Your task to perform on an android device: open app "Adobe Acrobat Reader: Edit PDF" Image 0: 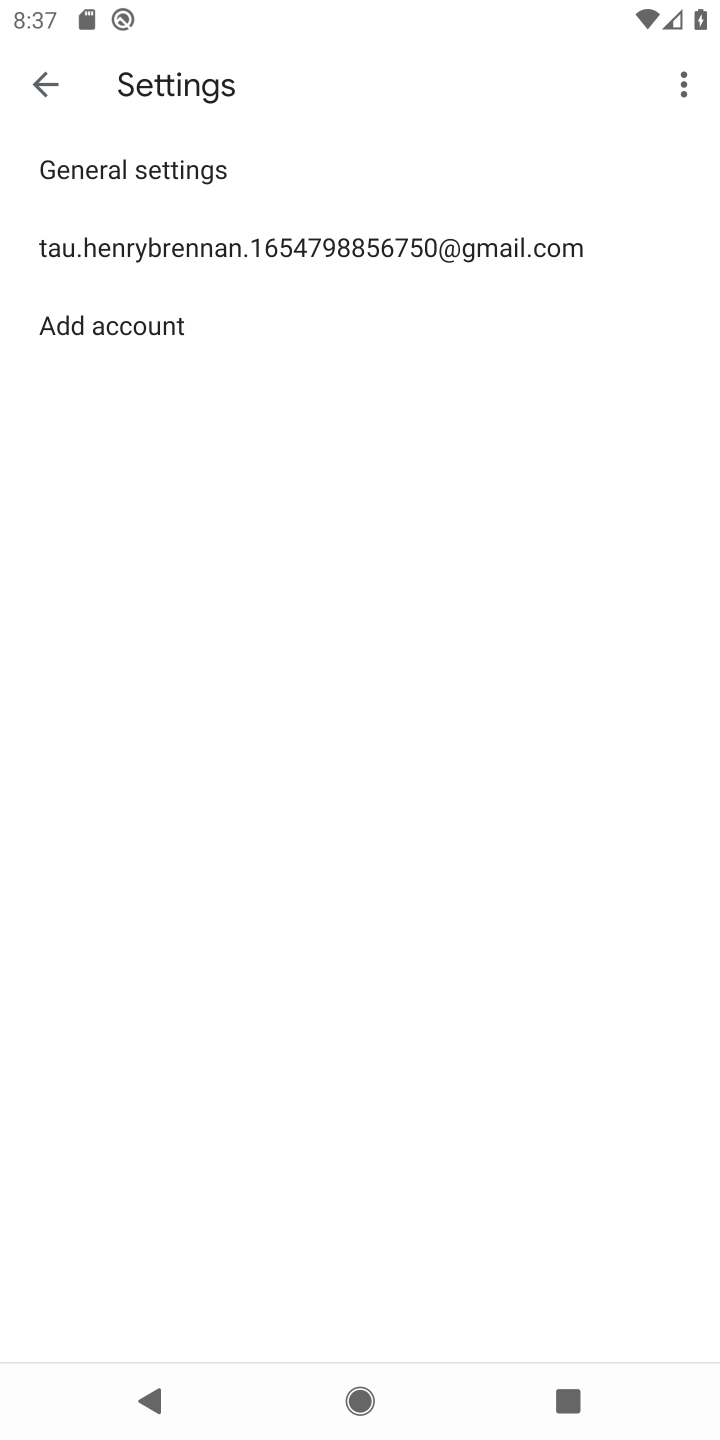
Step 0: press home button
Your task to perform on an android device: open app "Adobe Acrobat Reader: Edit PDF" Image 1: 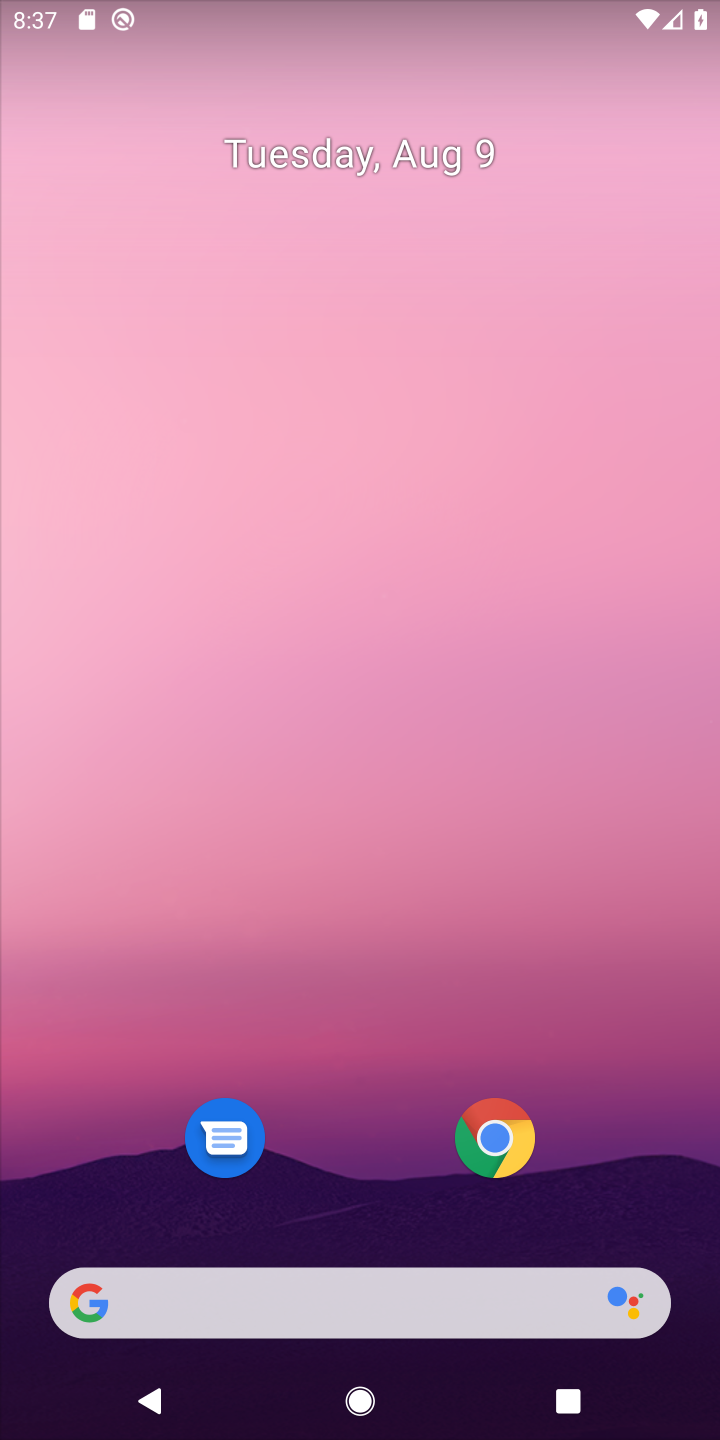
Step 1: drag from (356, 1075) to (356, 353)
Your task to perform on an android device: open app "Adobe Acrobat Reader: Edit PDF" Image 2: 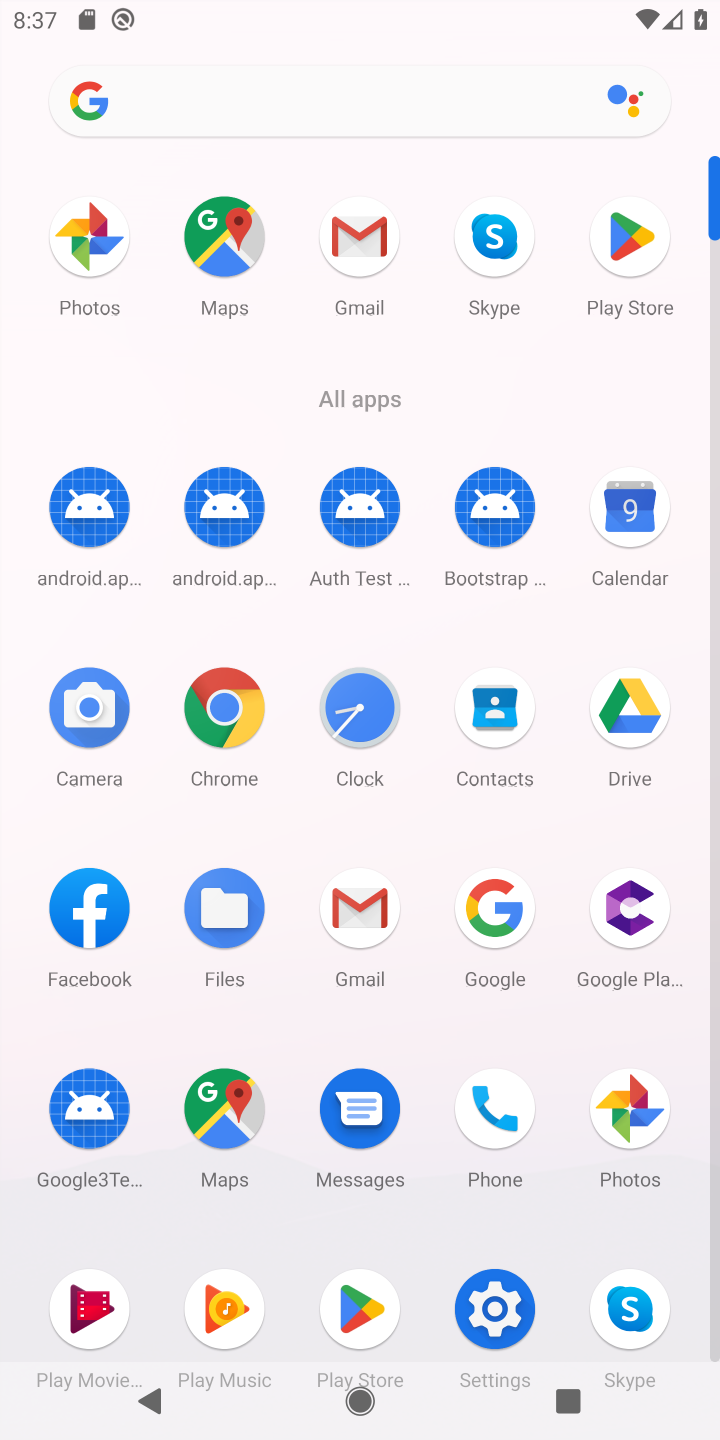
Step 2: click (605, 248)
Your task to perform on an android device: open app "Adobe Acrobat Reader: Edit PDF" Image 3: 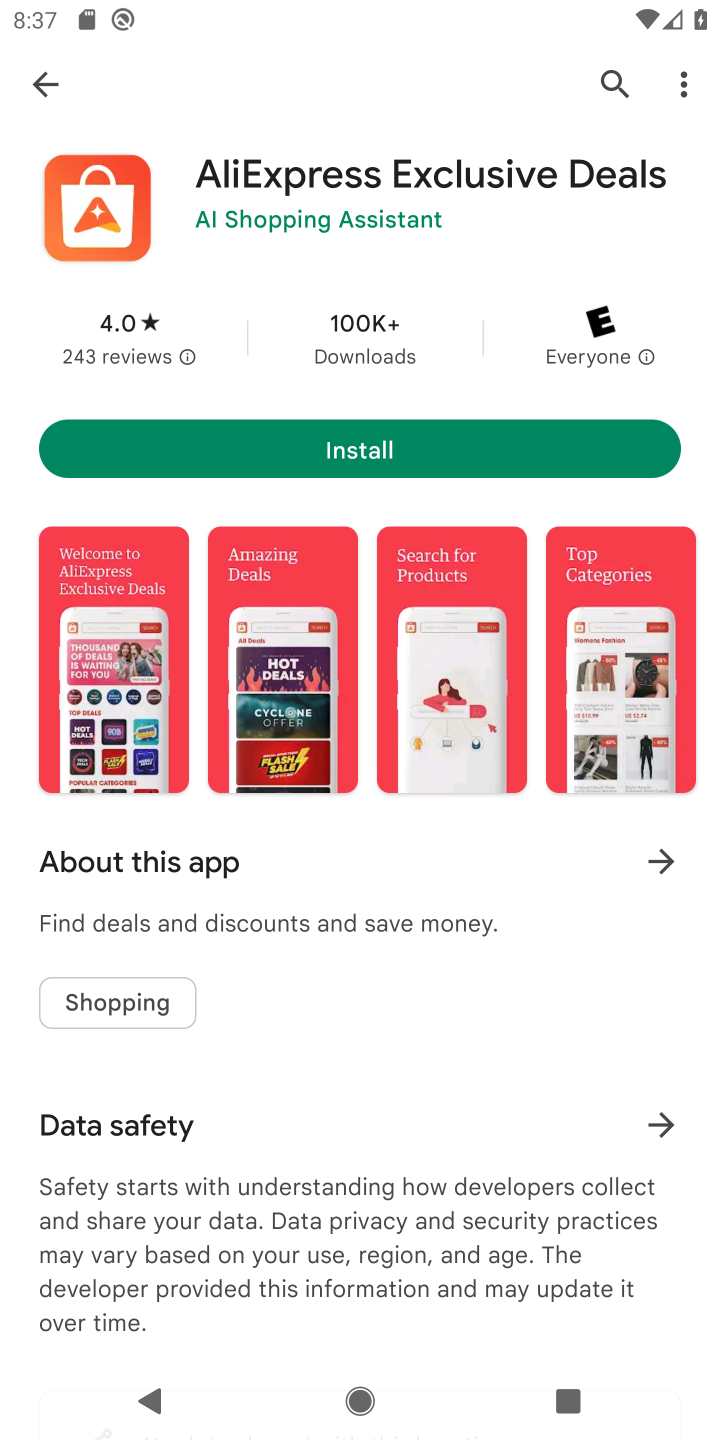
Step 3: click (622, 88)
Your task to perform on an android device: open app "Adobe Acrobat Reader: Edit PDF" Image 4: 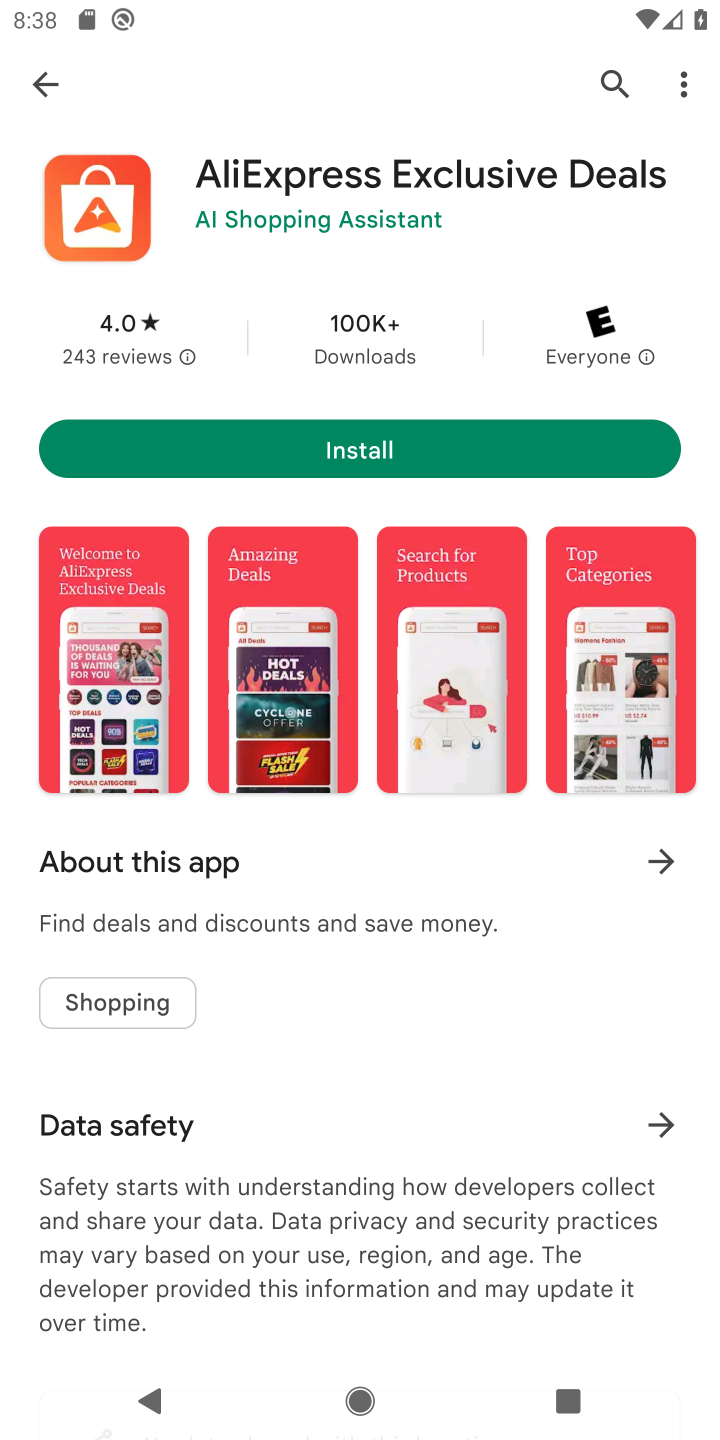
Step 4: click (614, 79)
Your task to perform on an android device: open app "Adobe Acrobat Reader: Edit PDF" Image 5: 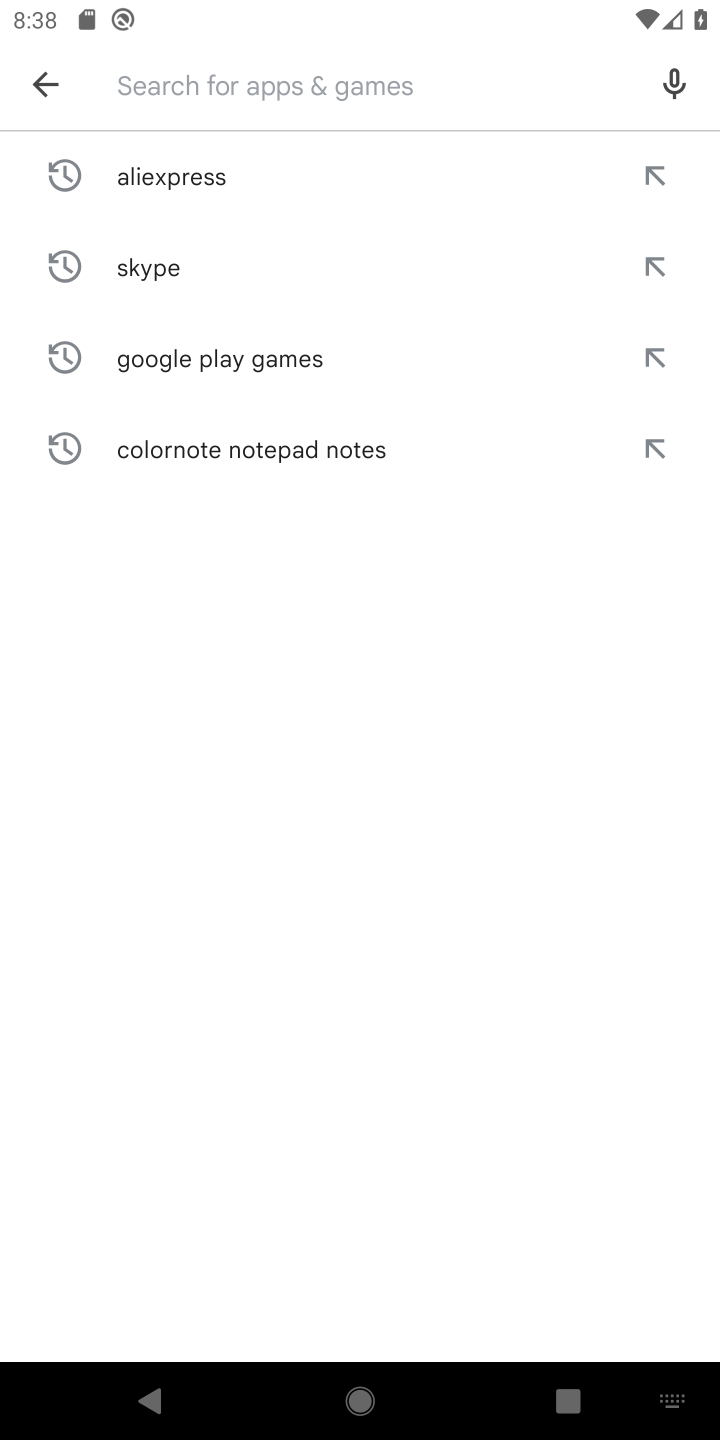
Step 5: type "Adobe Acrobat Reader: Edit PDF"
Your task to perform on an android device: open app "Adobe Acrobat Reader: Edit PDF" Image 6: 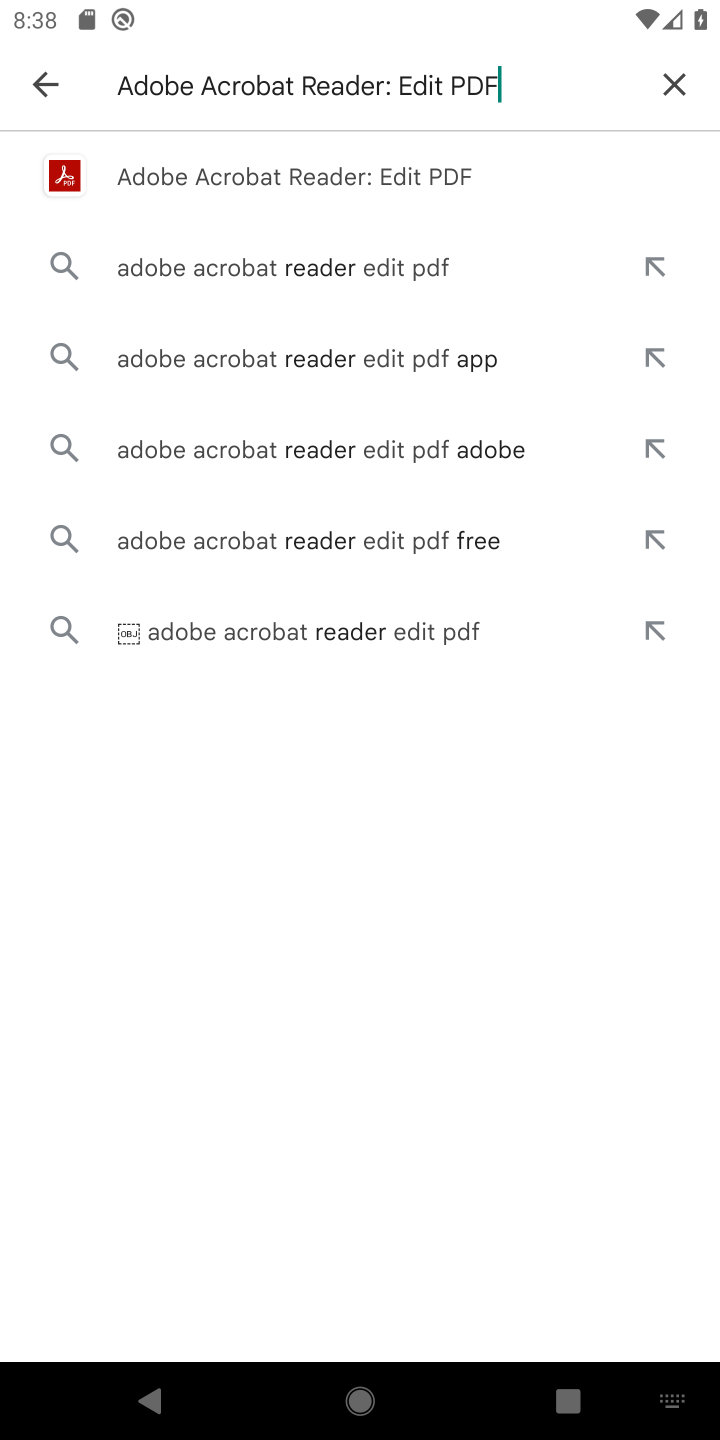
Step 6: click (203, 181)
Your task to perform on an android device: open app "Adobe Acrobat Reader: Edit PDF" Image 7: 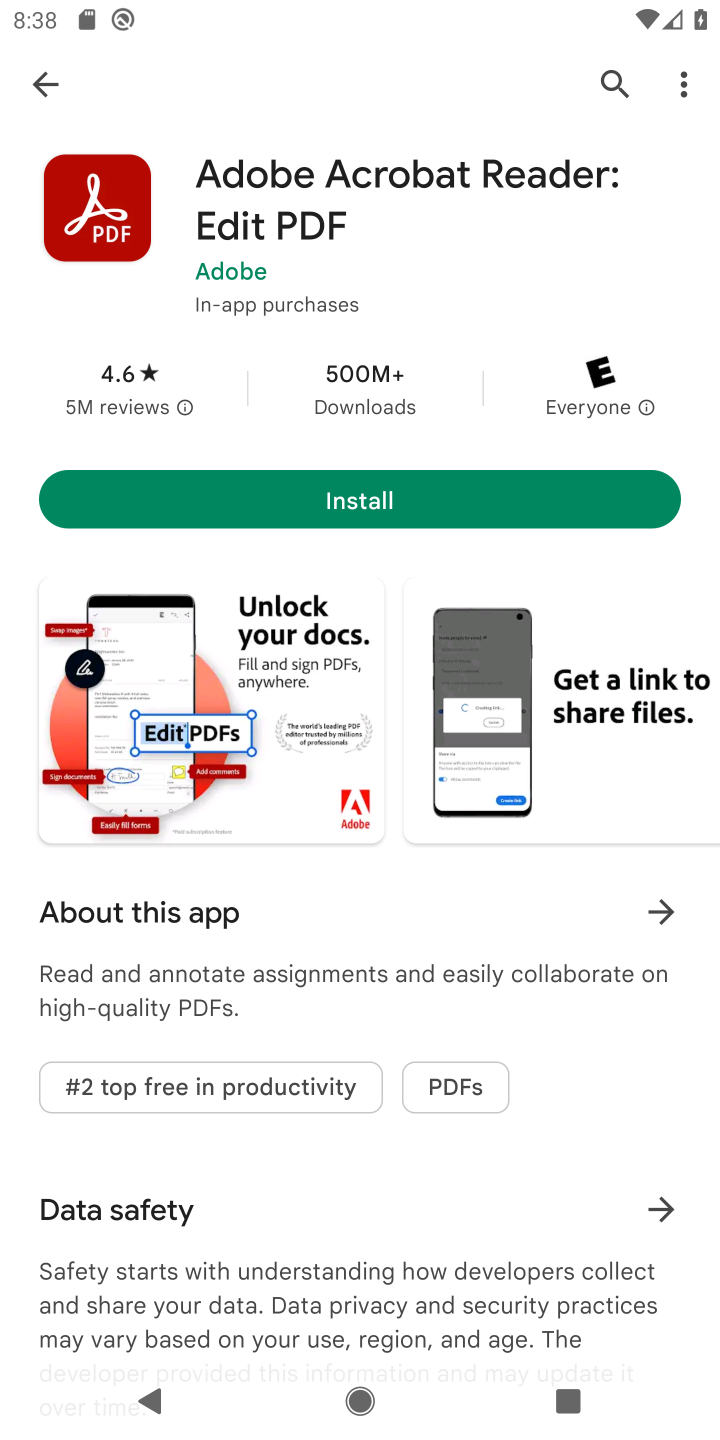
Step 7: task complete